Your task to perform on an android device: set default search engine in the chrome app Image 0: 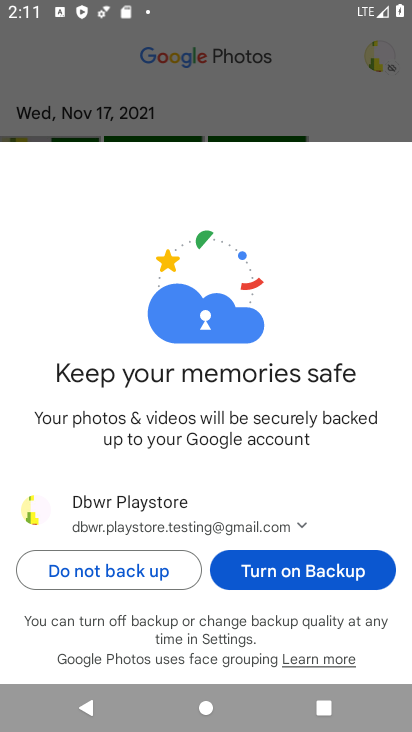
Step 0: press home button
Your task to perform on an android device: set default search engine in the chrome app Image 1: 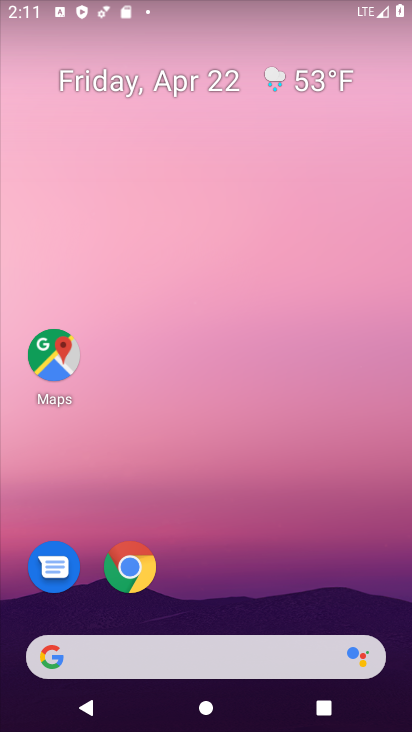
Step 1: click (127, 567)
Your task to perform on an android device: set default search engine in the chrome app Image 2: 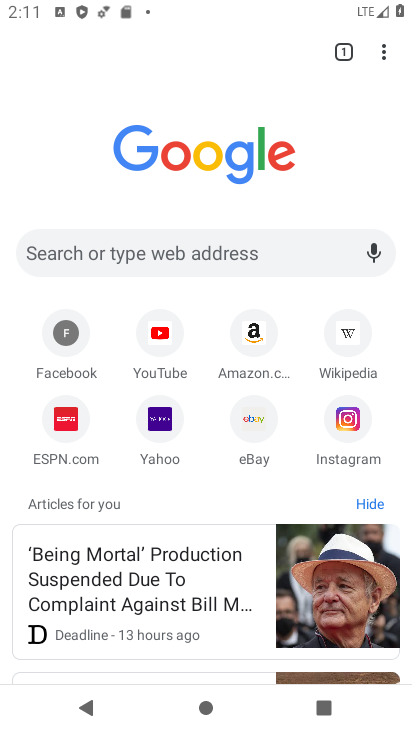
Step 2: click (384, 54)
Your task to perform on an android device: set default search engine in the chrome app Image 3: 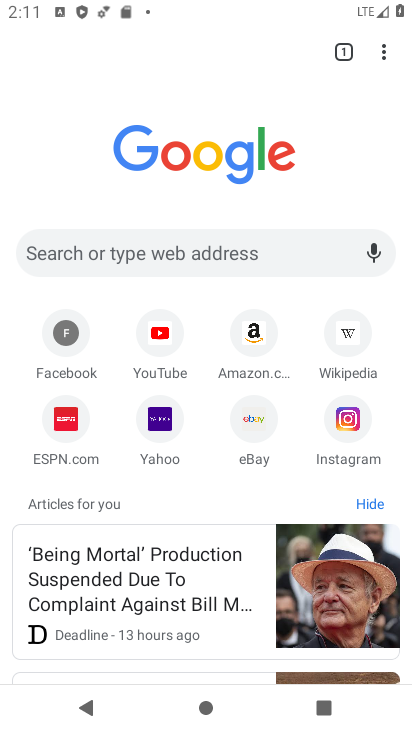
Step 3: click (384, 59)
Your task to perform on an android device: set default search engine in the chrome app Image 4: 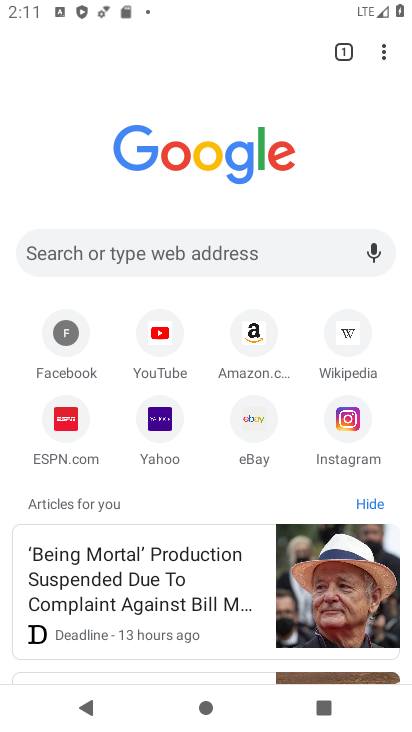
Step 4: click (384, 59)
Your task to perform on an android device: set default search engine in the chrome app Image 5: 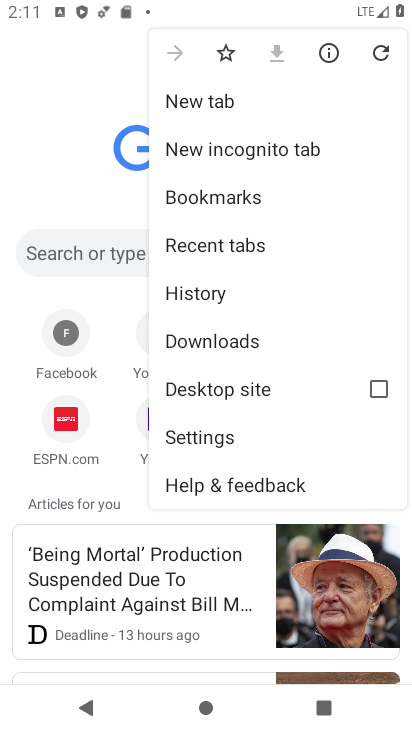
Step 5: click (217, 438)
Your task to perform on an android device: set default search engine in the chrome app Image 6: 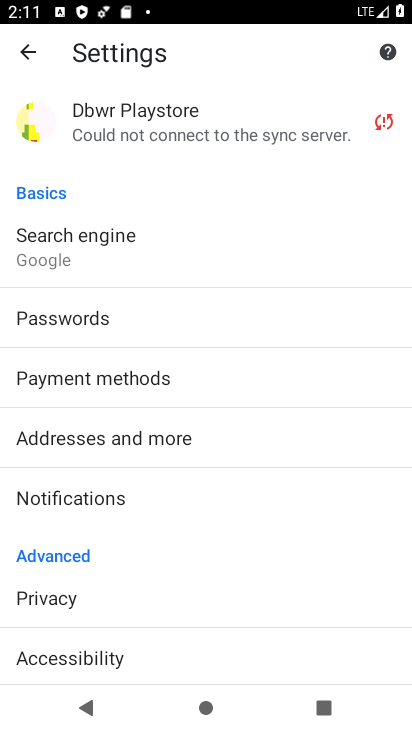
Step 6: click (85, 240)
Your task to perform on an android device: set default search engine in the chrome app Image 7: 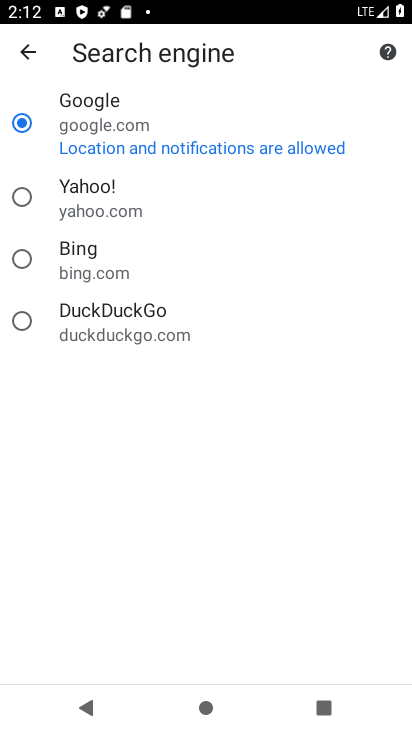
Step 7: click (20, 200)
Your task to perform on an android device: set default search engine in the chrome app Image 8: 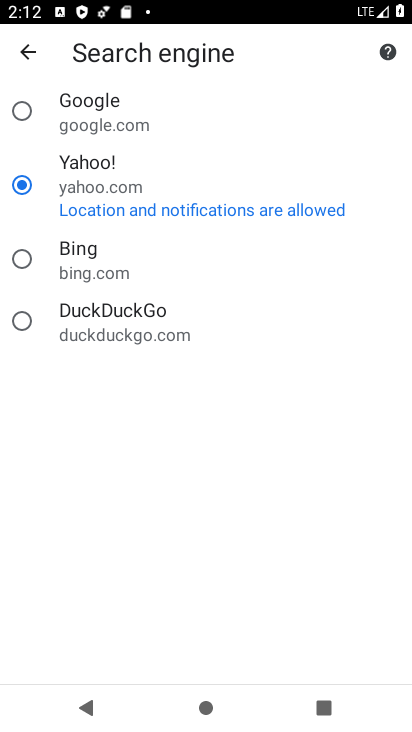
Step 8: task complete